Your task to perform on an android device: open a bookmark in the chrome app Image 0: 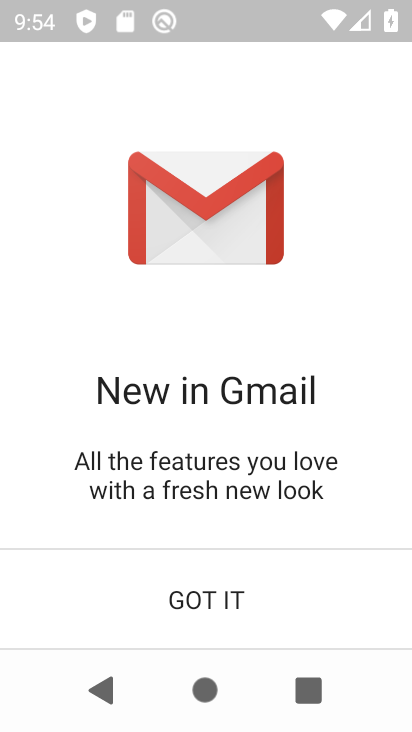
Step 0: press home button
Your task to perform on an android device: open a bookmark in the chrome app Image 1: 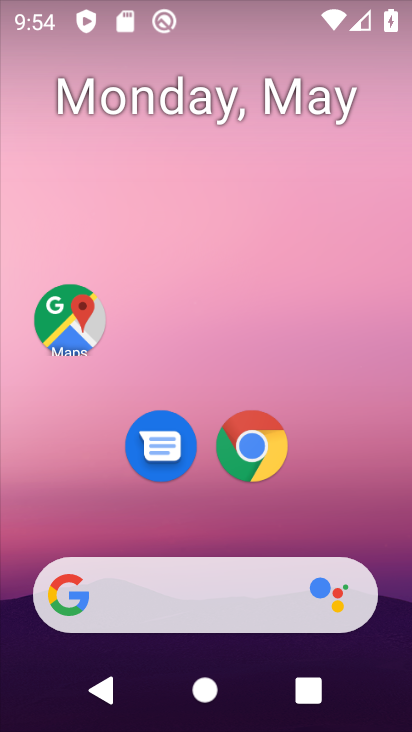
Step 1: click (258, 459)
Your task to perform on an android device: open a bookmark in the chrome app Image 2: 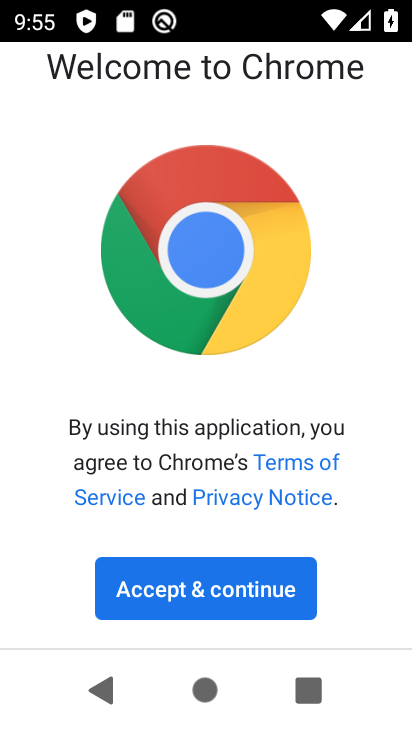
Step 2: click (278, 588)
Your task to perform on an android device: open a bookmark in the chrome app Image 3: 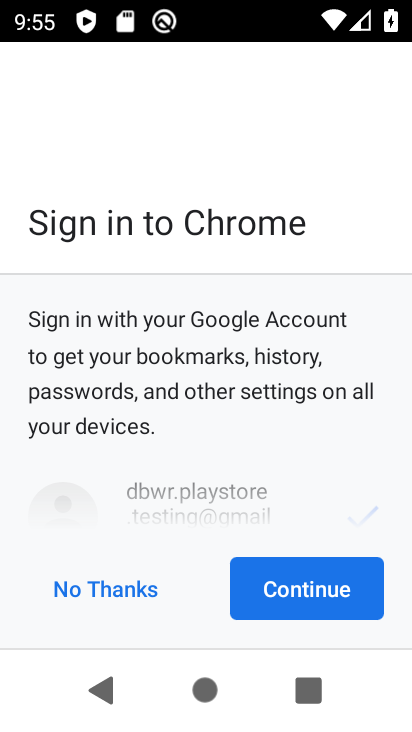
Step 3: click (278, 588)
Your task to perform on an android device: open a bookmark in the chrome app Image 4: 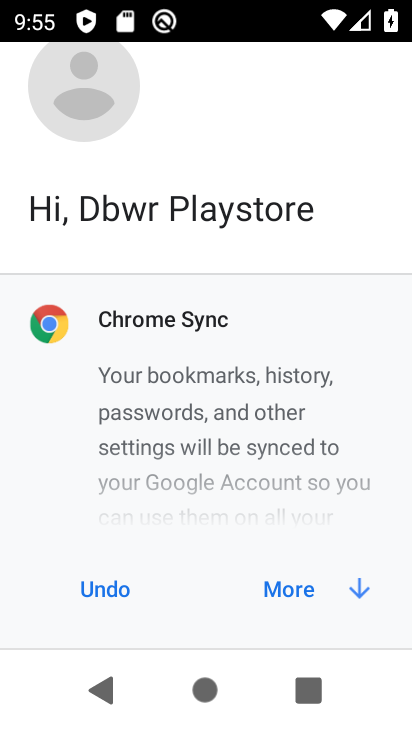
Step 4: click (278, 588)
Your task to perform on an android device: open a bookmark in the chrome app Image 5: 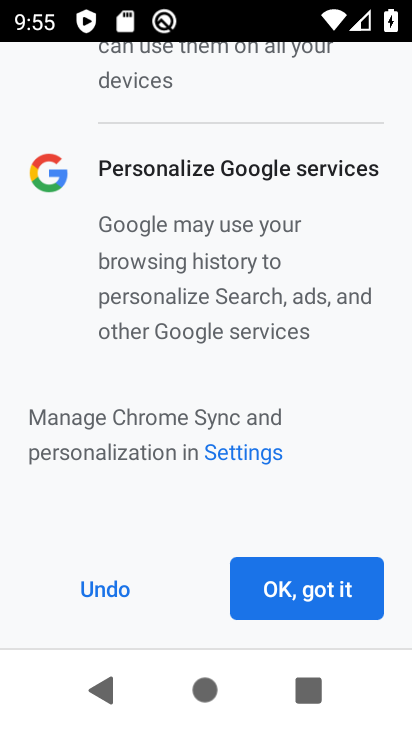
Step 5: click (278, 588)
Your task to perform on an android device: open a bookmark in the chrome app Image 6: 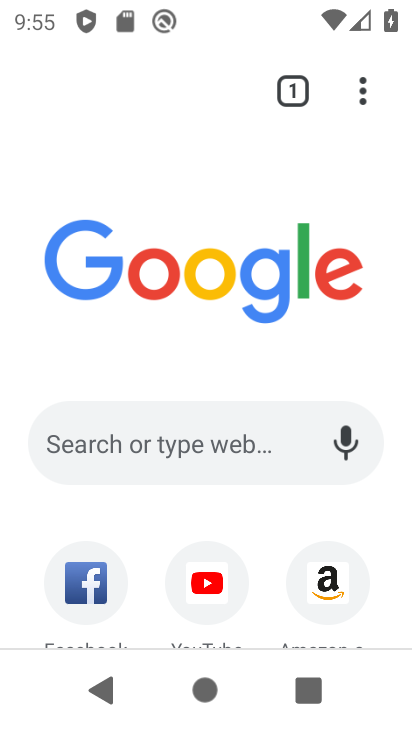
Step 6: click (367, 112)
Your task to perform on an android device: open a bookmark in the chrome app Image 7: 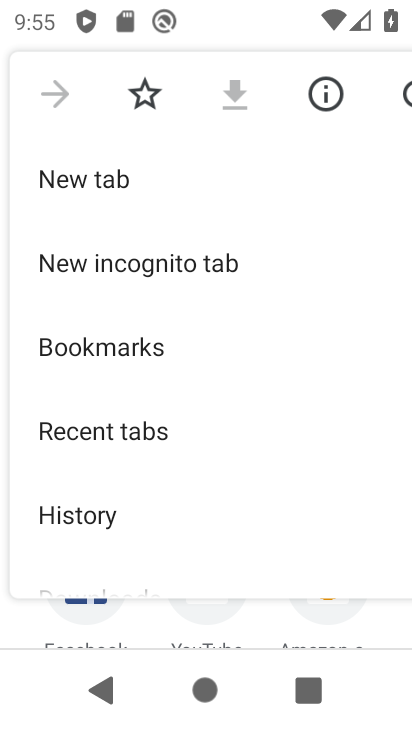
Step 7: click (169, 354)
Your task to perform on an android device: open a bookmark in the chrome app Image 8: 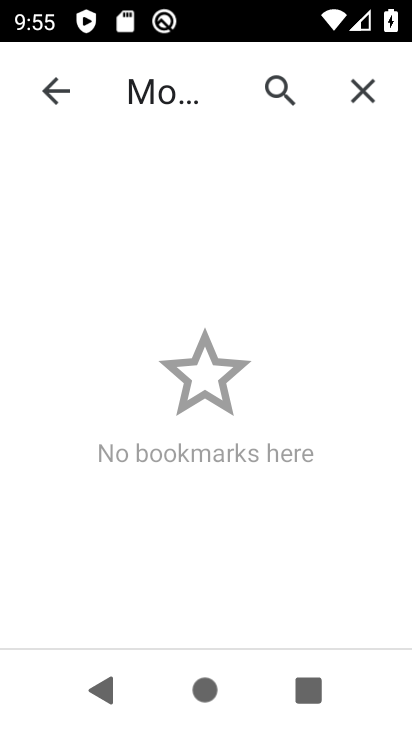
Step 8: task complete